Your task to perform on an android device: Open Google Chrome Image 0: 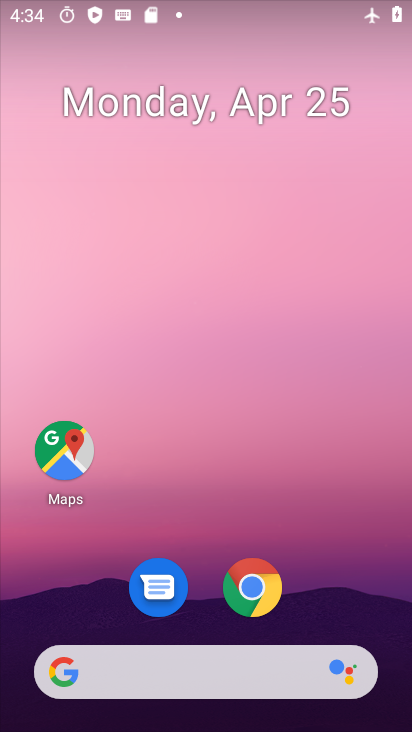
Step 0: click (263, 575)
Your task to perform on an android device: Open Google Chrome Image 1: 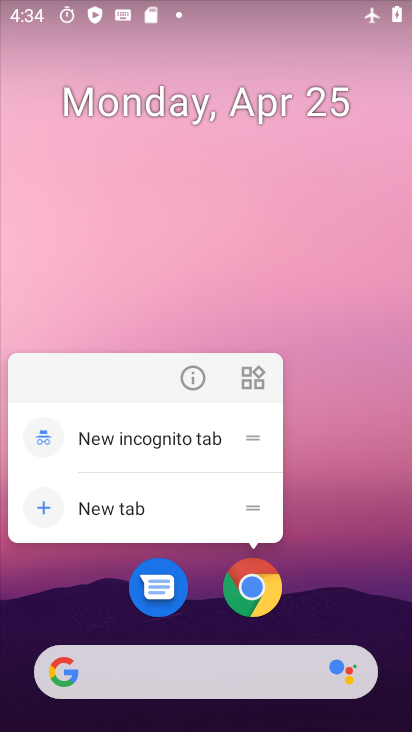
Step 1: click (323, 558)
Your task to perform on an android device: Open Google Chrome Image 2: 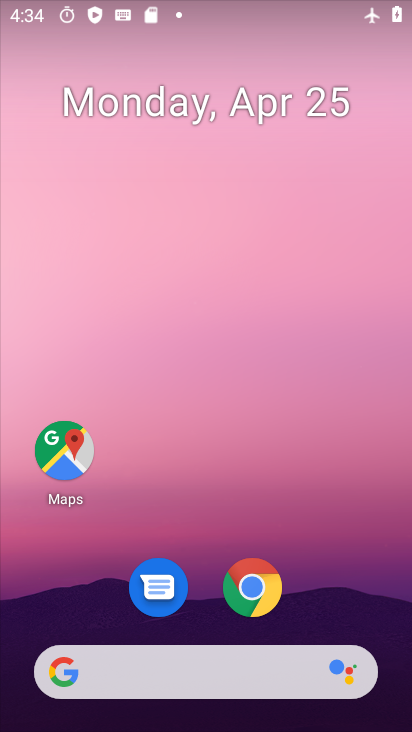
Step 2: drag from (357, 568) to (318, 85)
Your task to perform on an android device: Open Google Chrome Image 3: 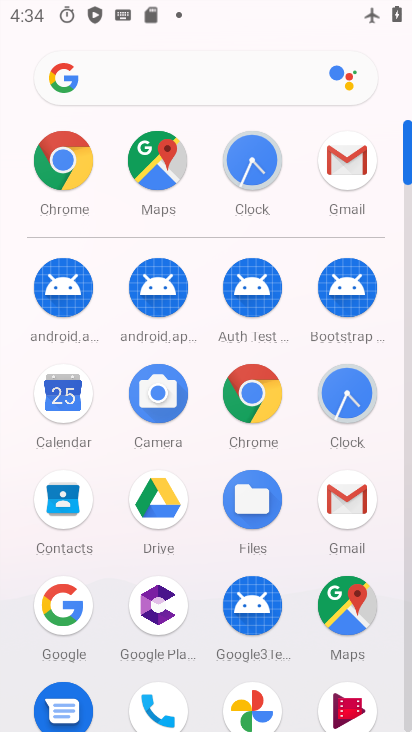
Step 3: click (266, 391)
Your task to perform on an android device: Open Google Chrome Image 4: 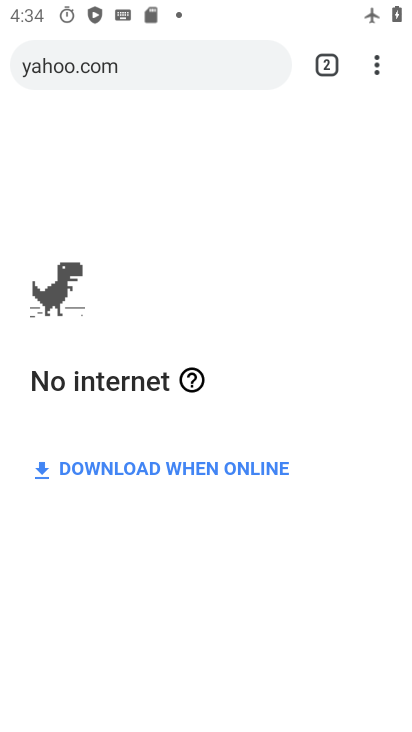
Step 4: task complete